Your task to perform on an android device: change notification settings in the gmail app Image 0: 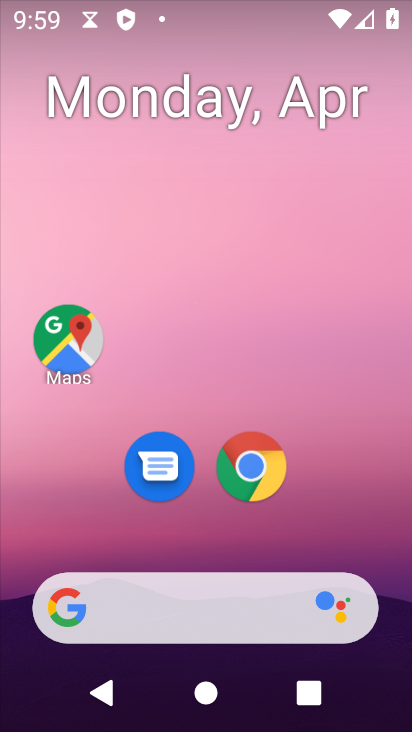
Step 0: drag from (196, 570) to (284, 108)
Your task to perform on an android device: change notification settings in the gmail app Image 1: 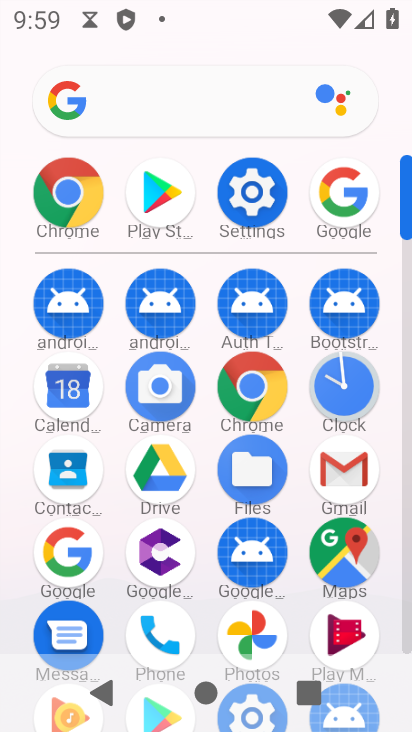
Step 1: click (349, 471)
Your task to perform on an android device: change notification settings in the gmail app Image 2: 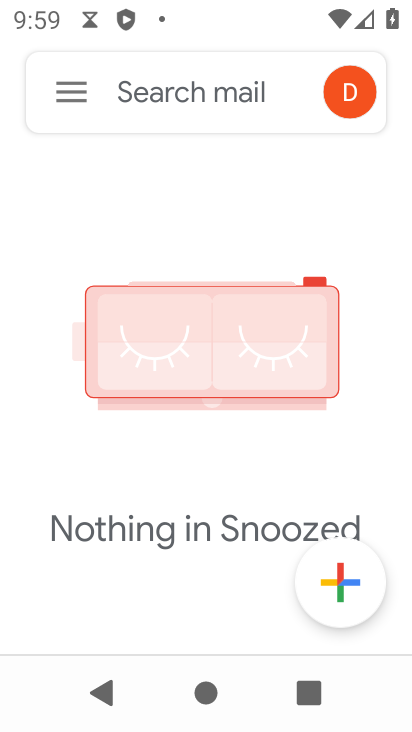
Step 2: click (66, 102)
Your task to perform on an android device: change notification settings in the gmail app Image 3: 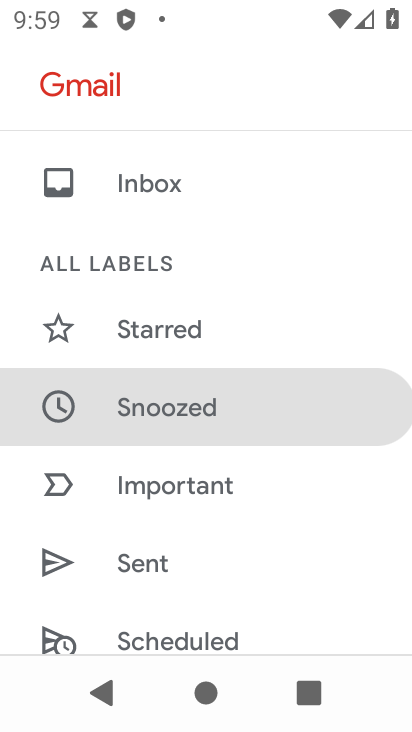
Step 3: drag from (182, 550) to (214, 373)
Your task to perform on an android device: change notification settings in the gmail app Image 4: 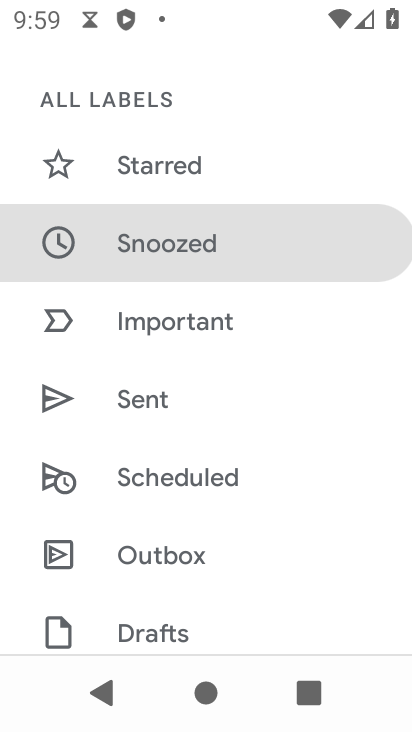
Step 4: drag from (220, 531) to (236, 445)
Your task to perform on an android device: change notification settings in the gmail app Image 5: 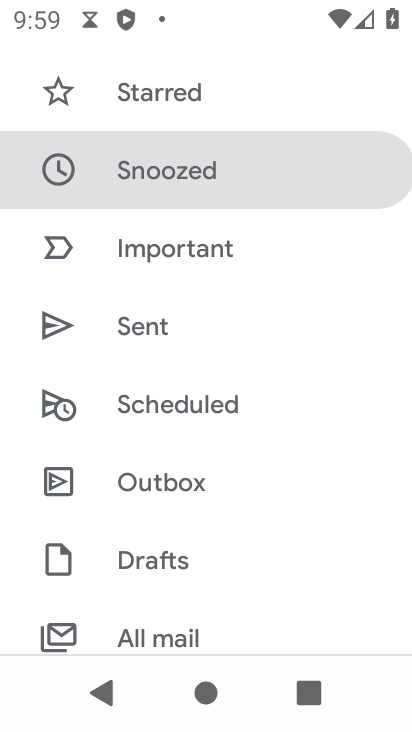
Step 5: drag from (224, 506) to (230, 448)
Your task to perform on an android device: change notification settings in the gmail app Image 6: 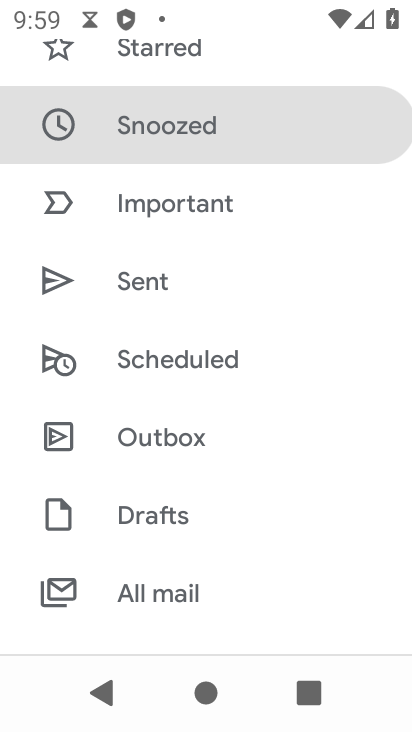
Step 6: drag from (213, 517) to (239, 393)
Your task to perform on an android device: change notification settings in the gmail app Image 7: 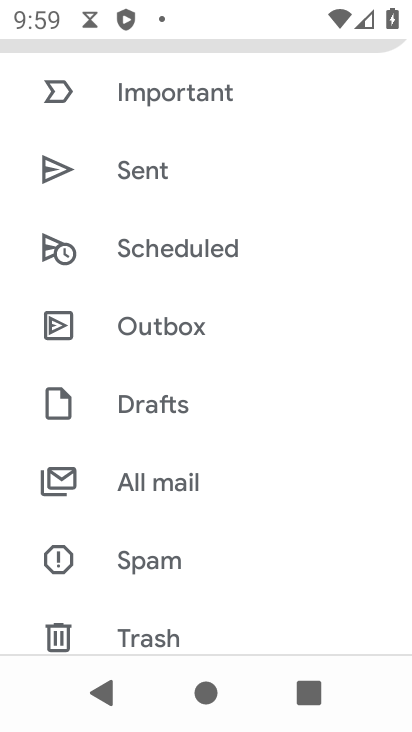
Step 7: drag from (206, 596) to (224, 480)
Your task to perform on an android device: change notification settings in the gmail app Image 8: 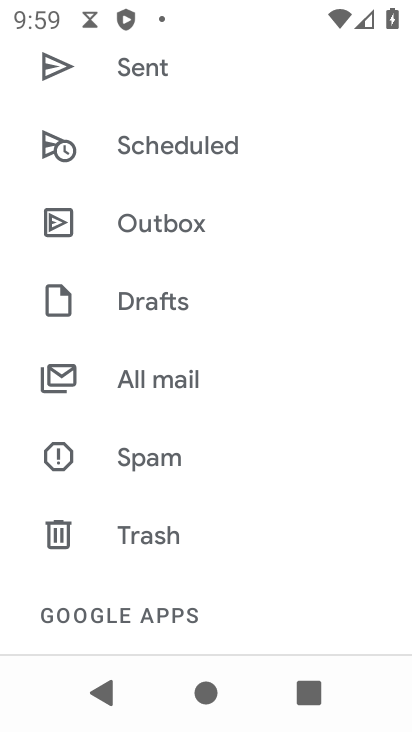
Step 8: drag from (237, 560) to (279, 456)
Your task to perform on an android device: change notification settings in the gmail app Image 9: 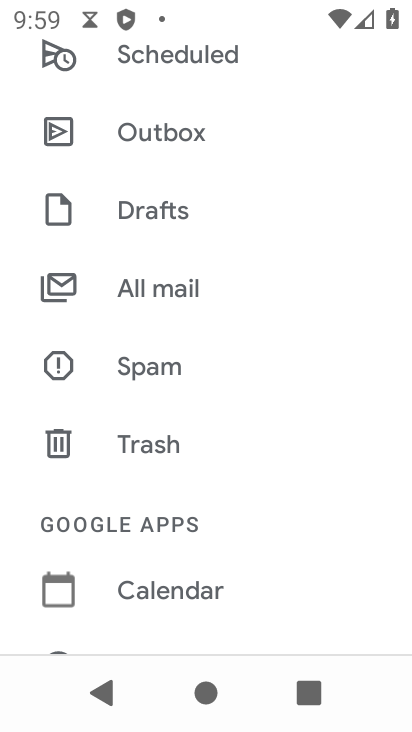
Step 9: drag from (229, 564) to (255, 453)
Your task to perform on an android device: change notification settings in the gmail app Image 10: 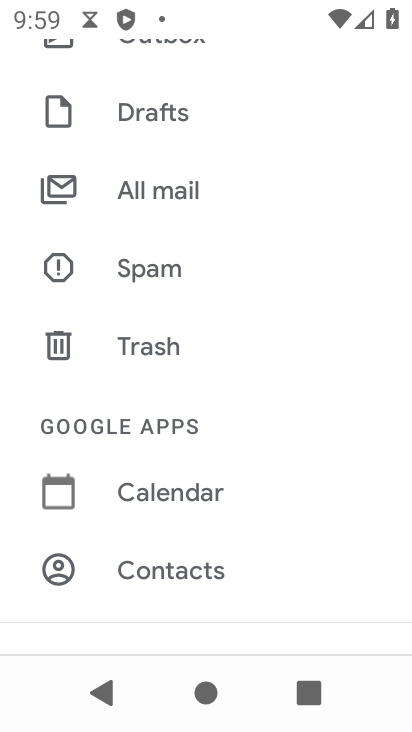
Step 10: drag from (251, 531) to (272, 414)
Your task to perform on an android device: change notification settings in the gmail app Image 11: 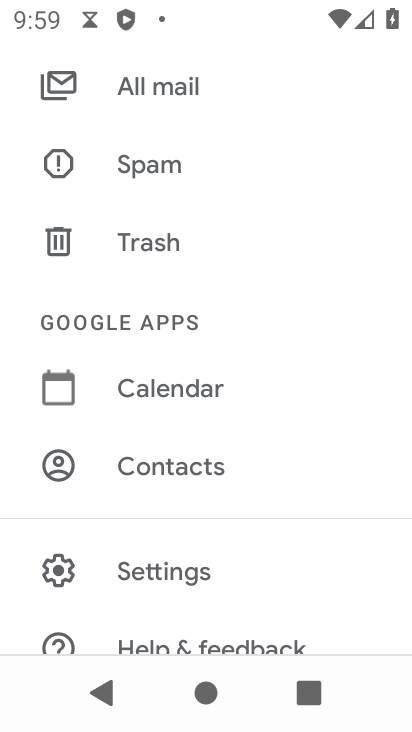
Step 11: drag from (265, 523) to (285, 419)
Your task to perform on an android device: change notification settings in the gmail app Image 12: 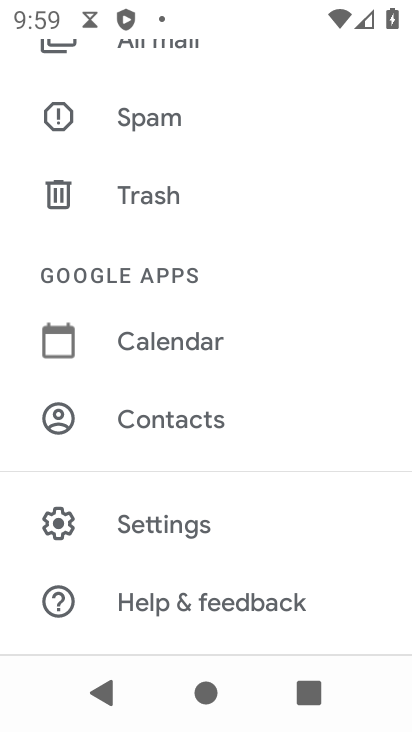
Step 12: click (169, 524)
Your task to perform on an android device: change notification settings in the gmail app Image 13: 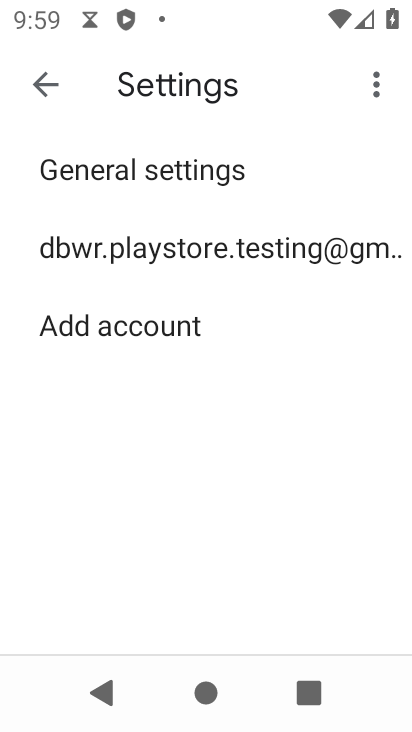
Step 13: click (251, 247)
Your task to perform on an android device: change notification settings in the gmail app Image 14: 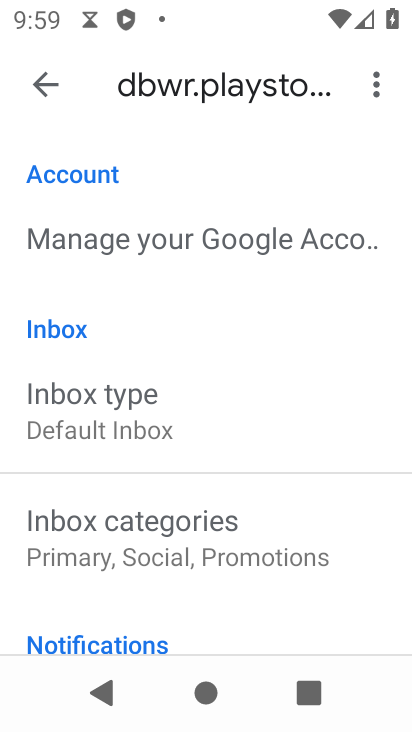
Step 14: drag from (211, 539) to (256, 397)
Your task to perform on an android device: change notification settings in the gmail app Image 15: 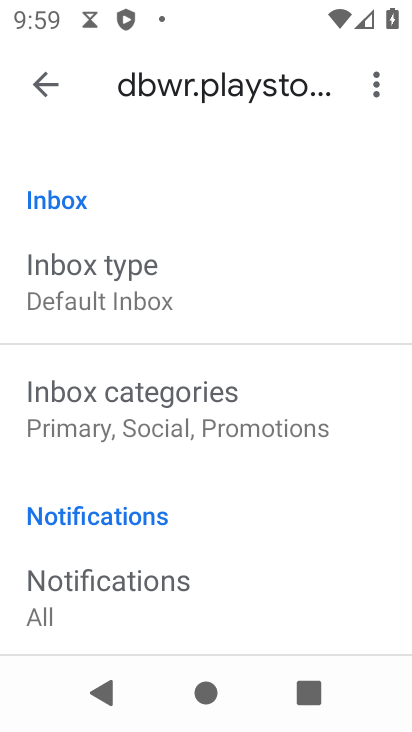
Step 15: drag from (224, 546) to (276, 402)
Your task to perform on an android device: change notification settings in the gmail app Image 16: 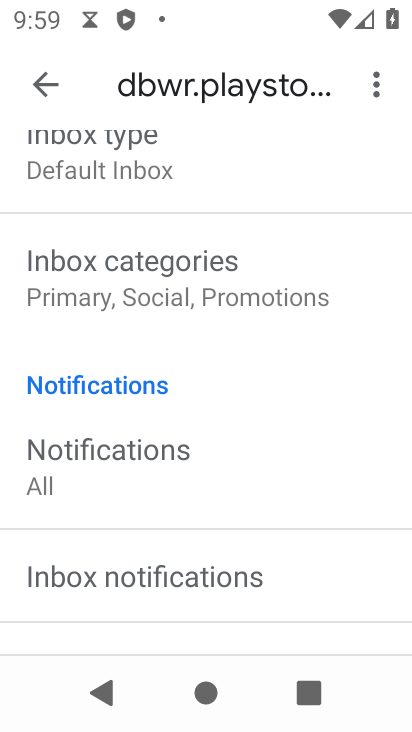
Step 16: drag from (228, 525) to (287, 419)
Your task to perform on an android device: change notification settings in the gmail app Image 17: 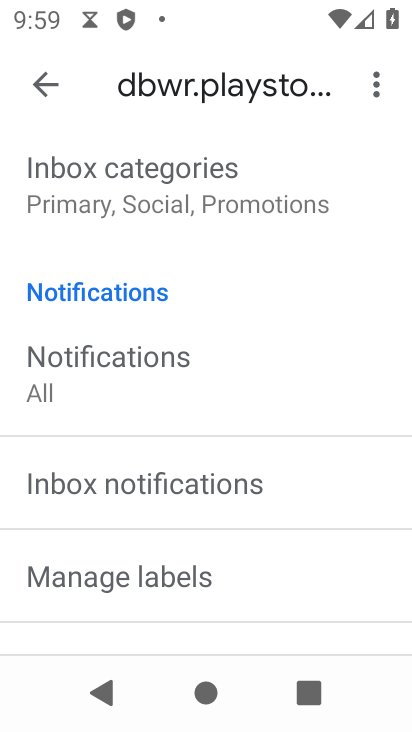
Step 17: drag from (233, 557) to (293, 451)
Your task to perform on an android device: change notification settings in the gmail app Image 18: 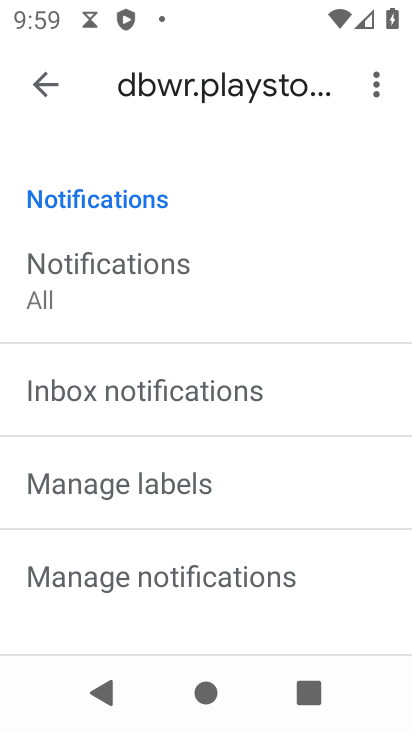
Step 18: drag from (220, 558) to (278, 464)
Your task to perform on an android device: change notification settings in the gmail app Image 19: 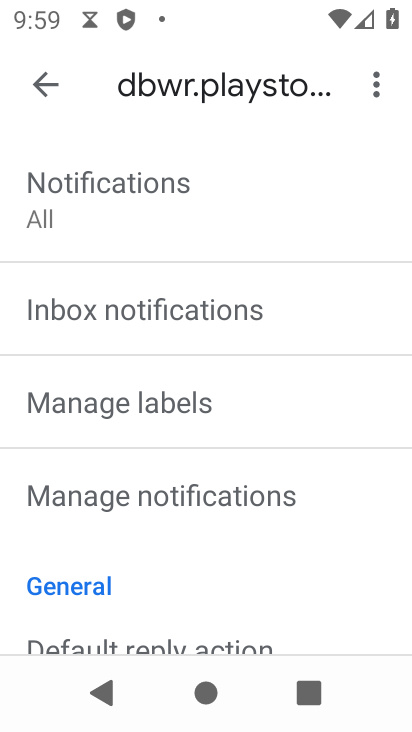
Step 19: click (201, 499)
Your task to perform on an android device: change notification settings in the gmail app Image 20: 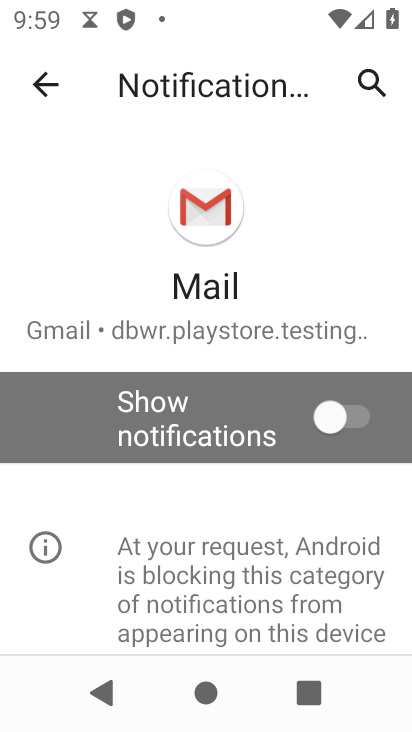
Step 20: click (341, 412)
Your task to perform on an android device: change notification settings in the gmail app Image 21: 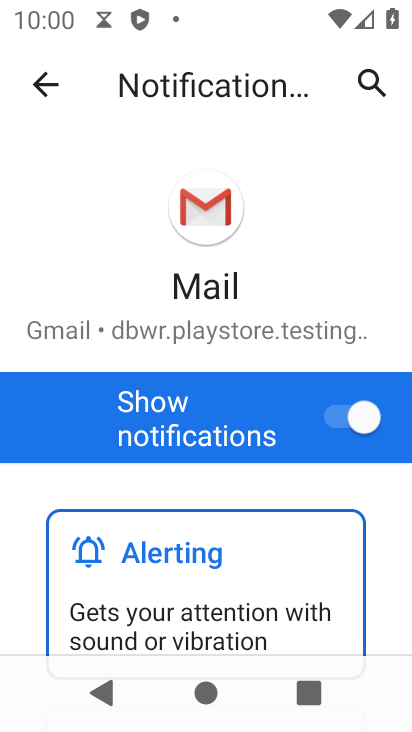
Step 21: task complete